Your task to perform on an android device: see sites visited before in the chrome app Image 0: 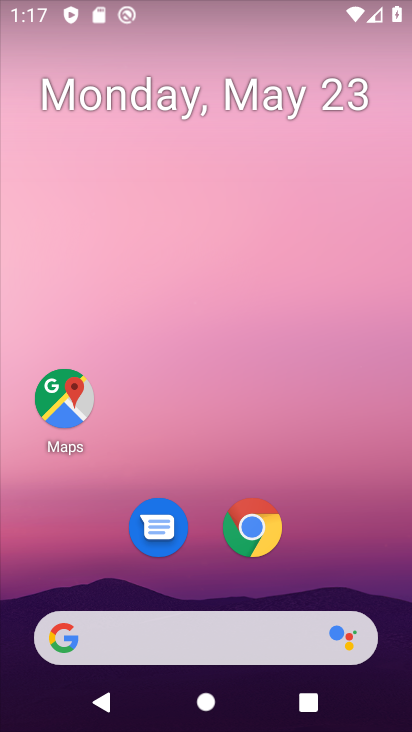
Step 0: click (255, 515)
Your task to perform on an android device: see sites visited before in the chrome app Image 1: 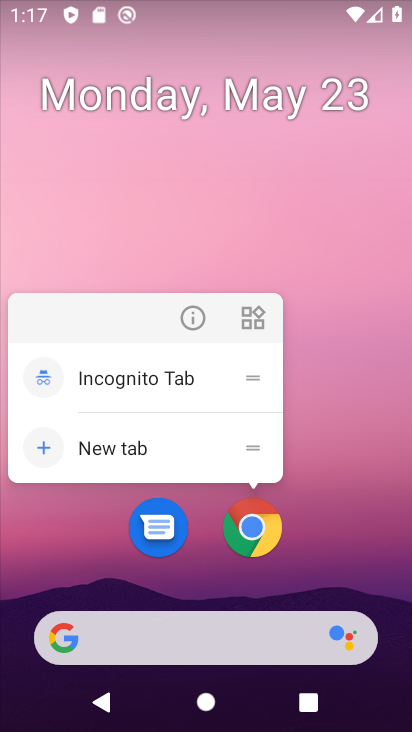
Step 1: click (247, 531)
Your task to perform on an android device: see sites visited before in the chrome app Image 2: 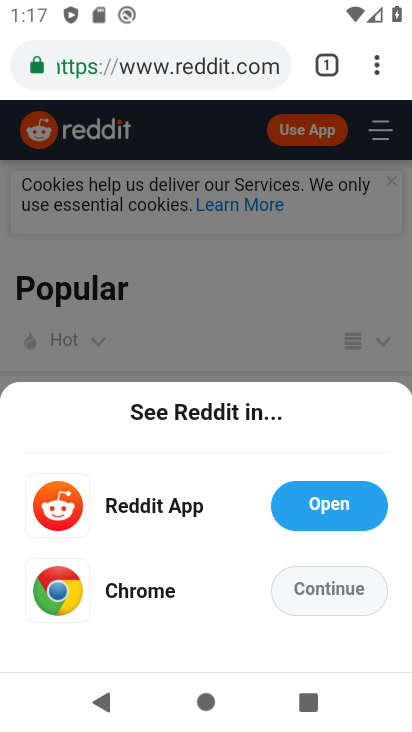
Step 2: task complete